Your task to perform on an android device: visit the assistant section in the google photos Image 0: 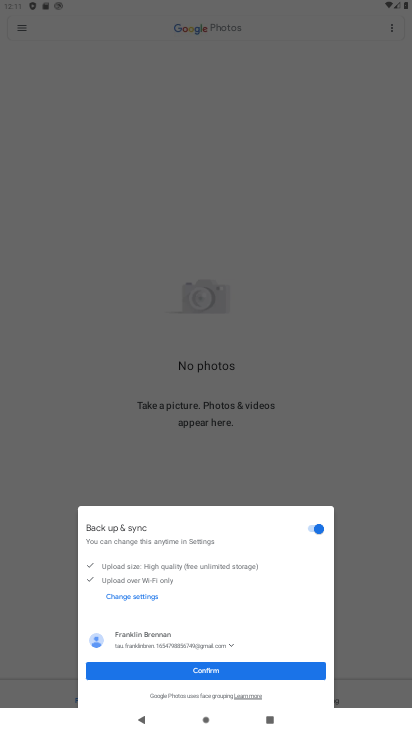
Step 0: press home button
Your task to perform on an android device: visit the assistant section in the google photos Image 1: 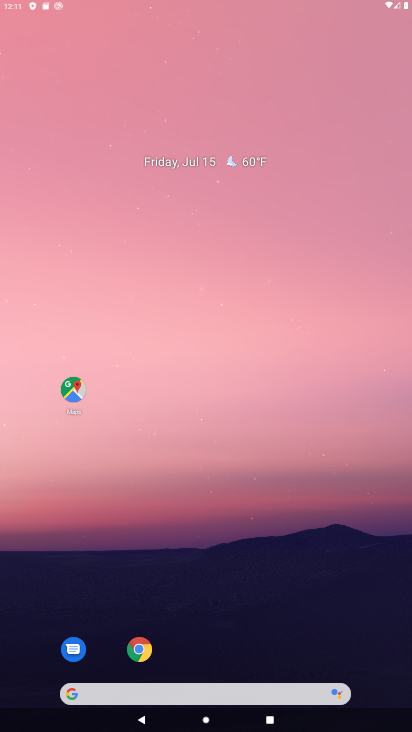
Step 1: drag from (290, 589) to (266, 231)
Your task to perform on an android device: visit the assistant section in the google photos Image 2: 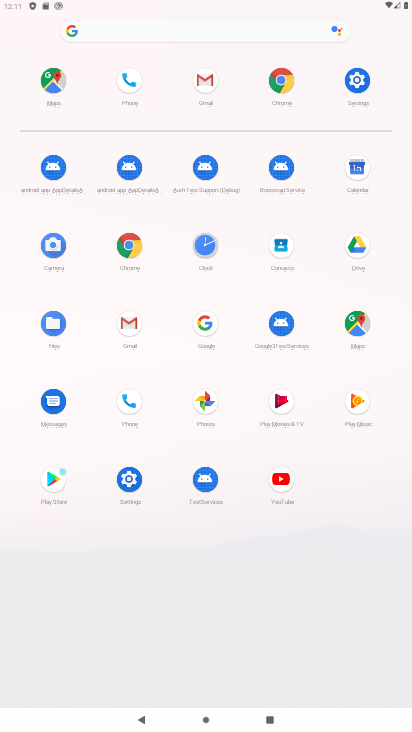
Step 2: click (195, 392)
Your task to perform on an android device: visit the assistant section in the google photos Image 3: 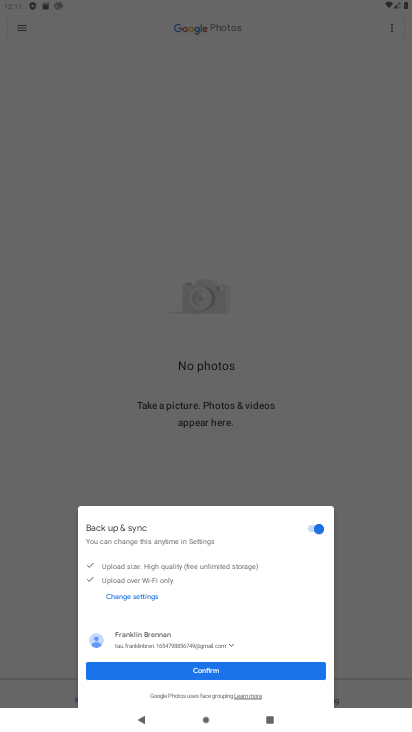
Step 3: click (208, 674)
Your task to perform on an android device: visit the assistant section in the google photos Image 4: 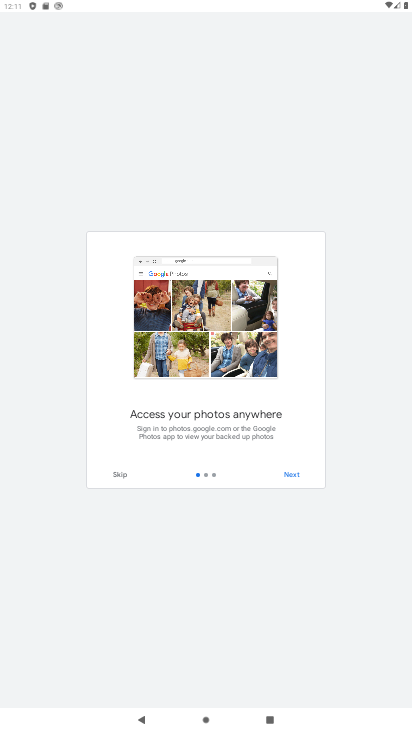
Step 4: click (300, 474)
Your task to perform on an android device: visit the assistant section in the google photos Image 5: 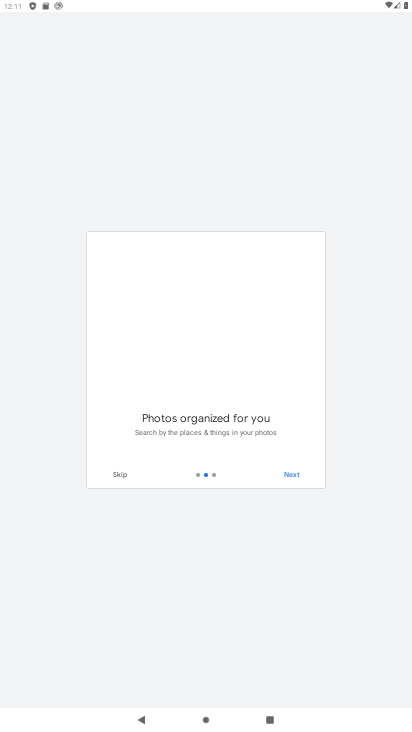
Step 5: click (300, 474)
Your task to perform on an android device: visit the assistant section in the google photos Image 6: 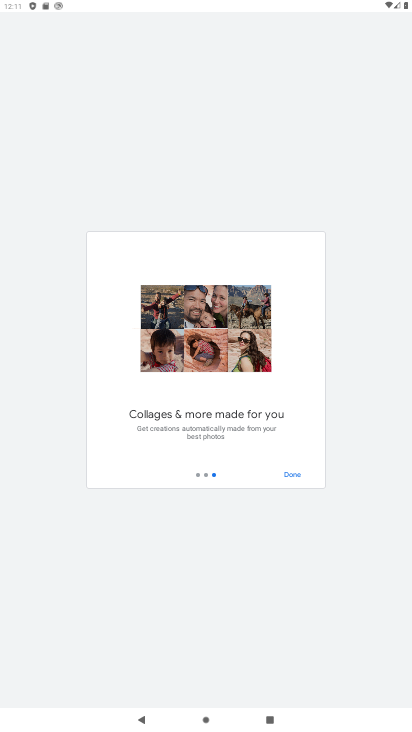
Step 6: click (300, 474)
Your task to perform on an android device: visit the assistant section in the google photos Image 7: 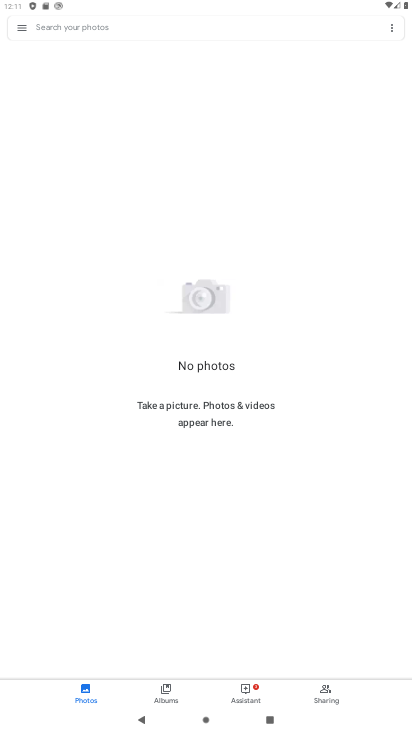
Step 7: click (253, 685)
Your task to perform on an android device: visit the assistant section in the google photos Image 8: 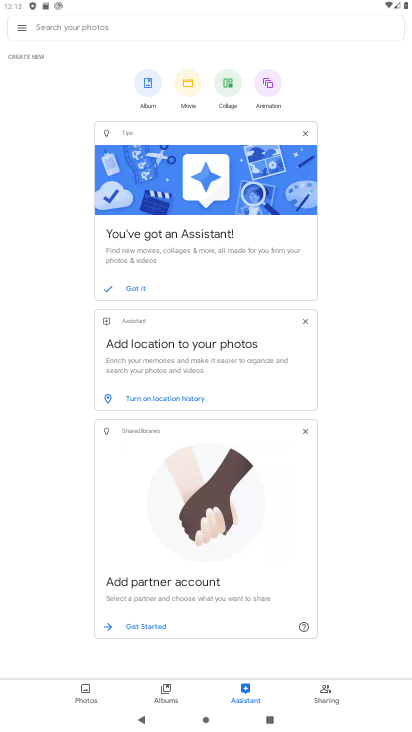
Step 8: task complete